Your task to perform on an android device: add a contact Image 0: 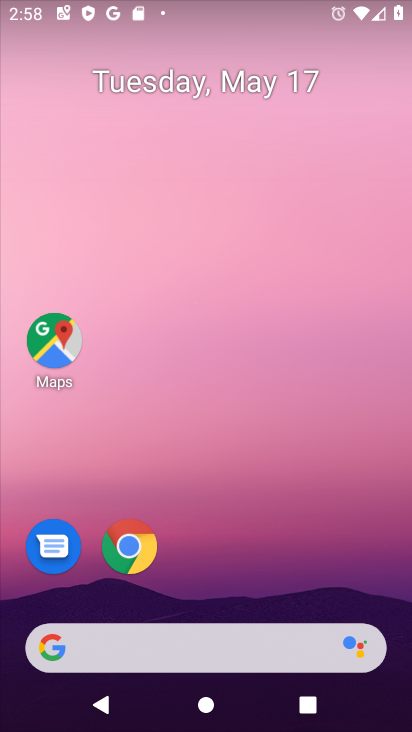
Step 0: click (397, 367)
Your task to perform on an android device: add a contact Image 1: 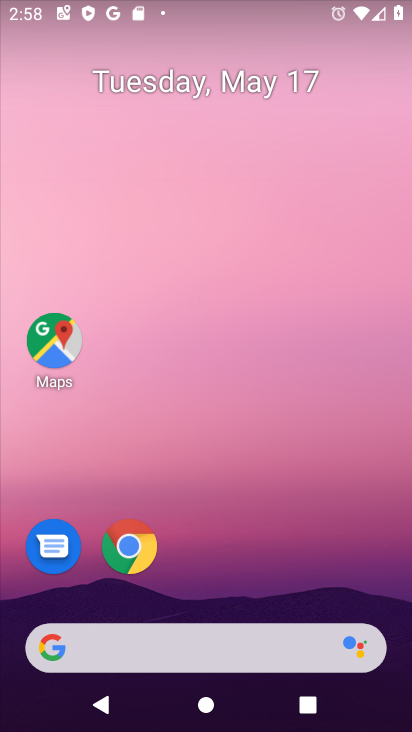
Step 1: drag from (406, 603) to (404, 320)
Your task to perform on an android device: add a contact Image 2: 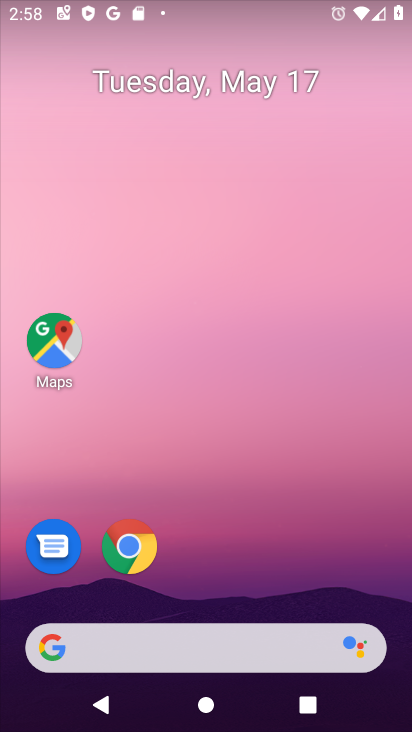
Step 2: click (409, 656)
Your task to perform on an android device: add a contact Image 3: 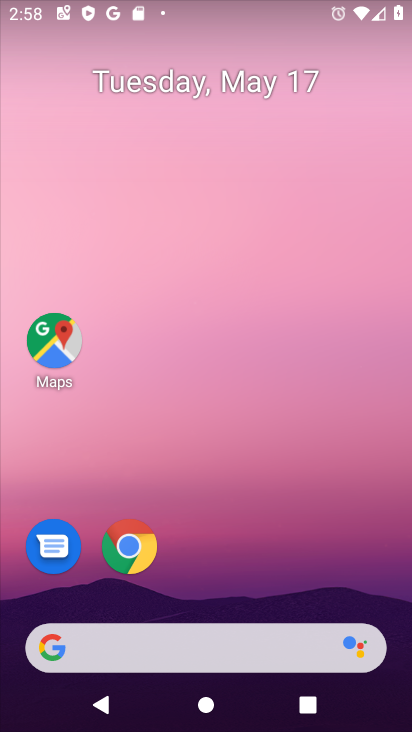
Step 3: drag from (407, 654) to (410, 100)
Your task to perform on an android device: add a contact Image 4: 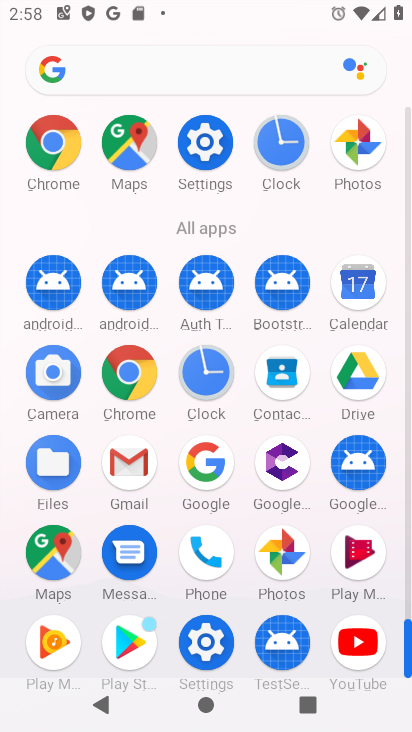
Step 4: click (279, 382)
Your task to perform on an android device: add a contact Image 5: 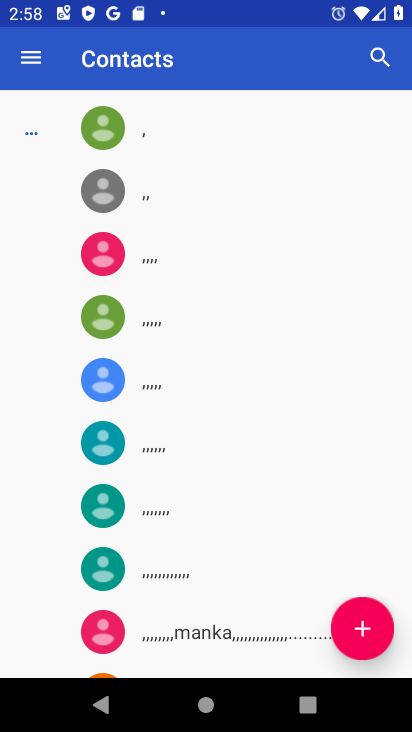
Step 5: click (348, 616)
Your task to perform on an android device: add a contact Image 6: 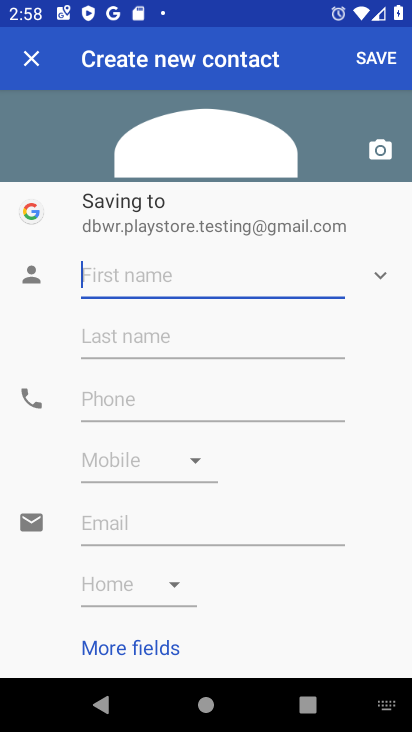
Step 6: type "aefgn"
Your task to perform on an android device: add a contact Image 7: 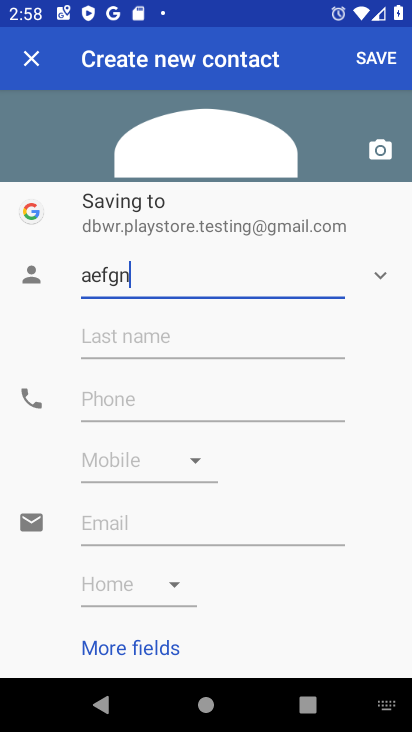
Step 7: click (113, 341)
Your task to perform on an android device: add a contact Image 8: 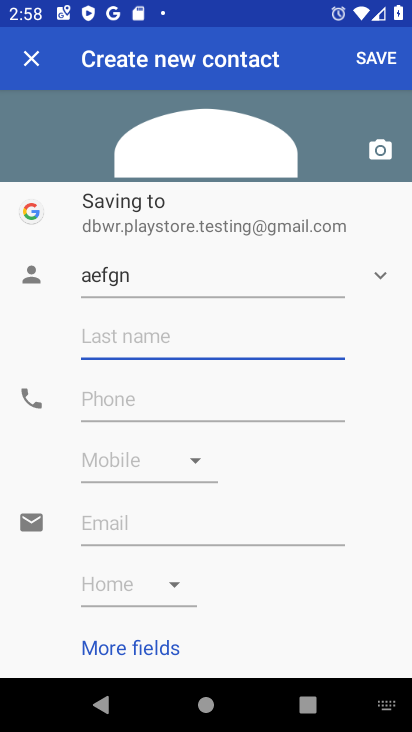
Step 8: type "rfghnmm"
Your task to perform on an android device: add a contact Image 9: 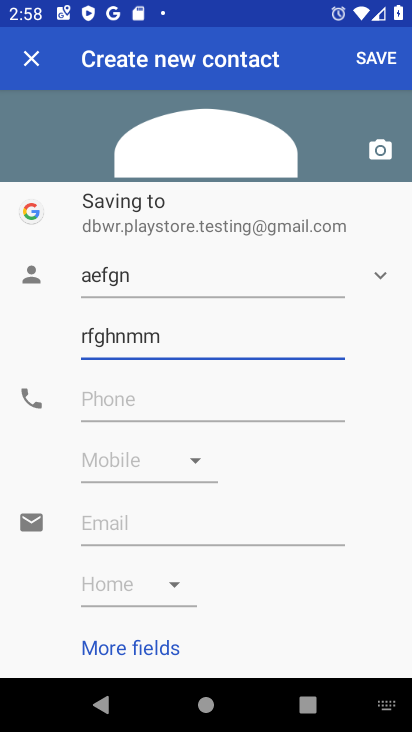
Step 9: click (150, 404)
Your task to perform on an android device: add a contact Image 10: 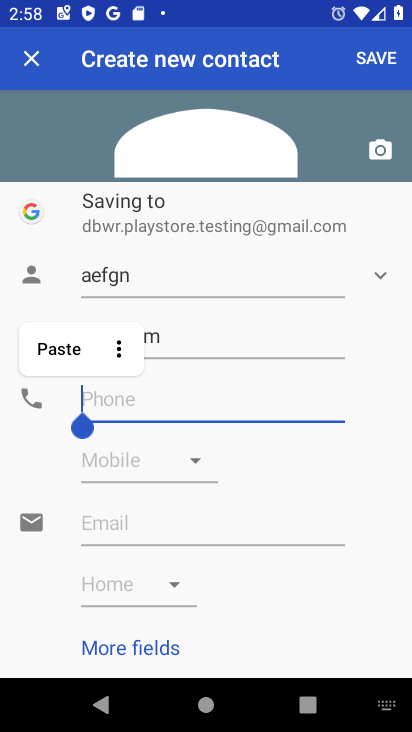
Step 10: type "12345678765"
Your task to perform on an android device: add a contact Image 11: 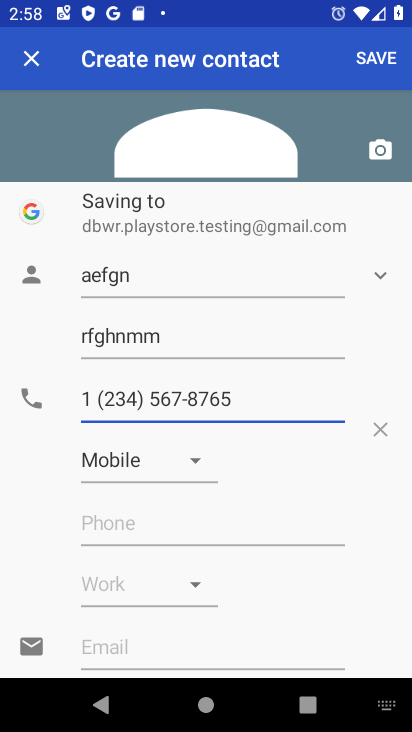
Step 11: click (393, 57)
Your task to perform on an android device: add a contact Image 12: 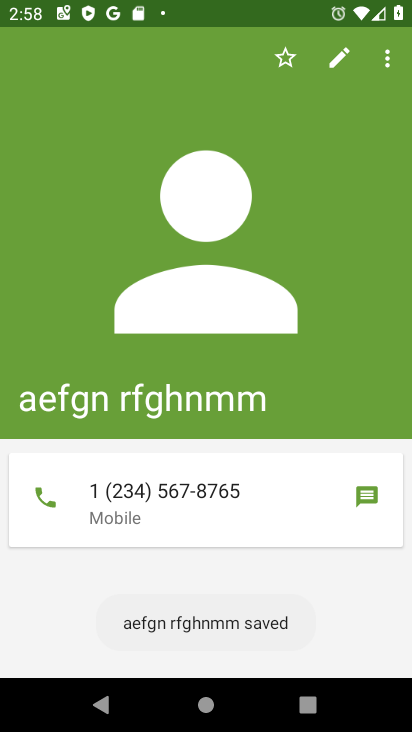
Step 12: task complete